Your task to perform on an android device: Open Reddit.com Image 0: 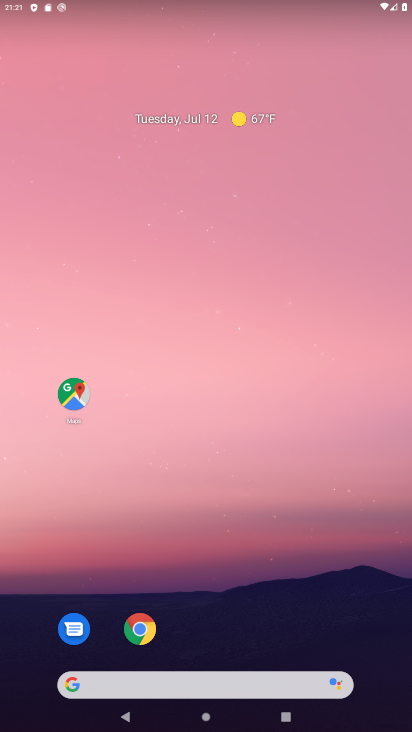
Step 0: click (253, 694)
Your task to perform on an android device: Open Reddit.com Image 1: 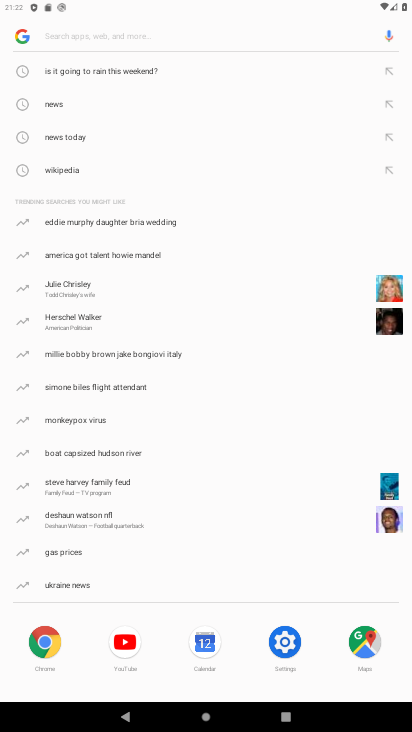
Step 1: click (253, 694)
Your task to perform on an android device: Open Reddit.com Image 2: 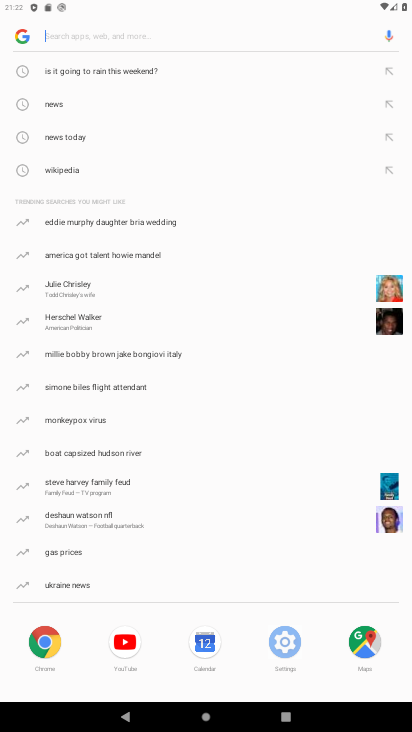
Step 2: click (253, 694)
Your task to perform on an android device: Open Reddit.com Image 3: 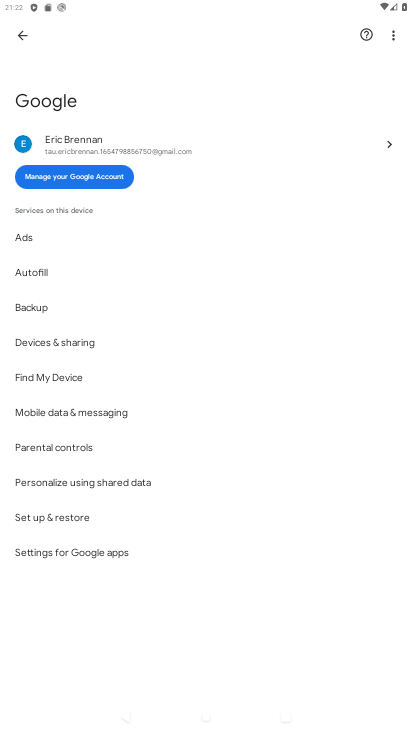
Step 3: press home button
Your task to perform on an android device: Open Reddit.com Image 4: 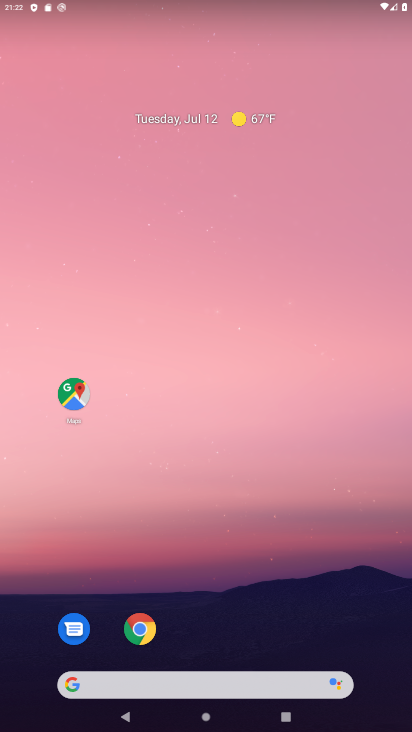
Step 4: click (231, 685)
Your task to perform on an android device: Open Reddit.com Image 5: 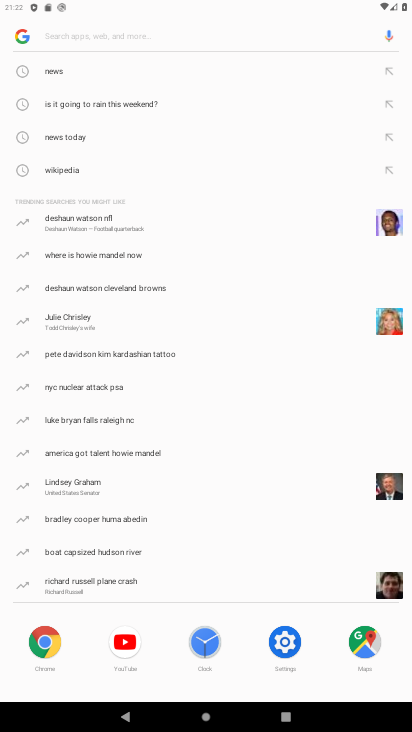
Step 5: type "reddit.com"
Your task to perform on an android device: Open Reddit.com Image 6: 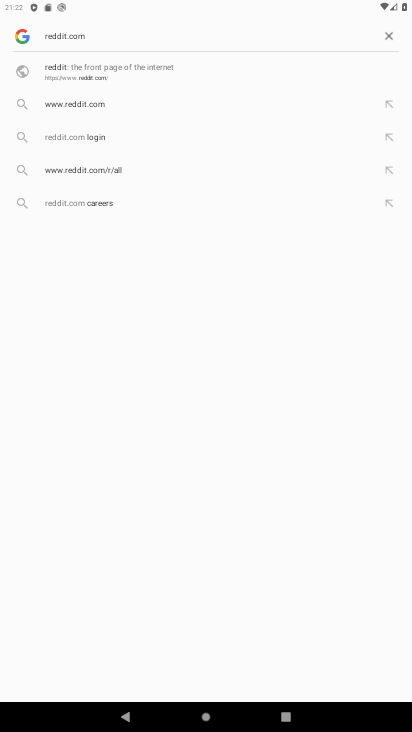
Step 6: click (170, 73)
Your task to perform on an android device: Open Reddit.com Image 7: 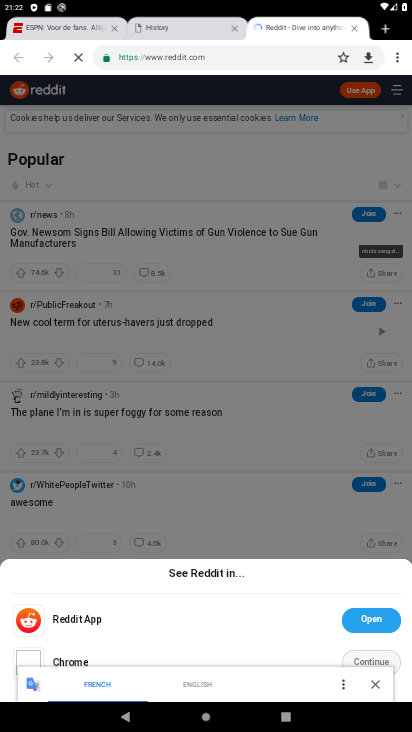
Step 7: task complete